Your task to perform on an android device: Show me popular games on the Play Store Image 0: 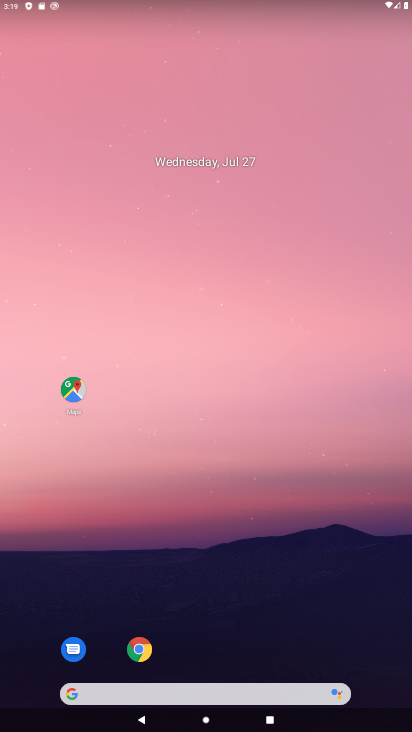
Step 0: drag from (373, 654) to (328, 153)
Your task to perform on an android device: Show me popular games on the Play Store Image 1: 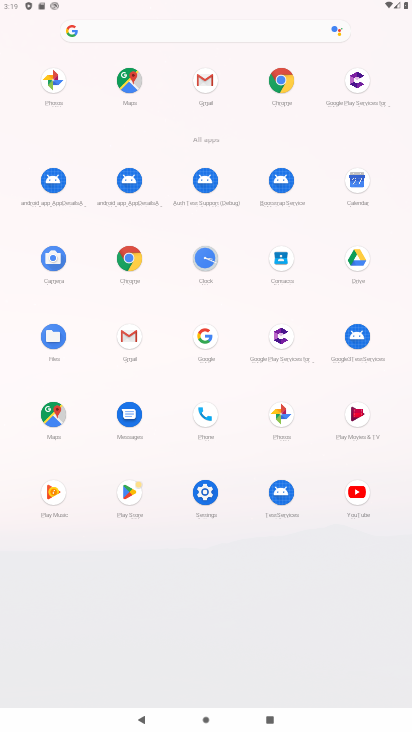
Step 1: click (131, 490)
Your task to perform on an android device: Show me popular games on the Play Store Image 2: 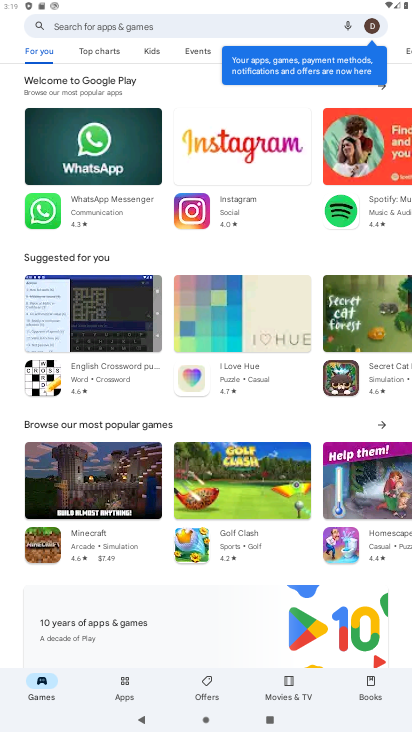
Step 2: click (382, 426)
Your task to perform on an android device: Show me popular games on the Play Store Image 3: 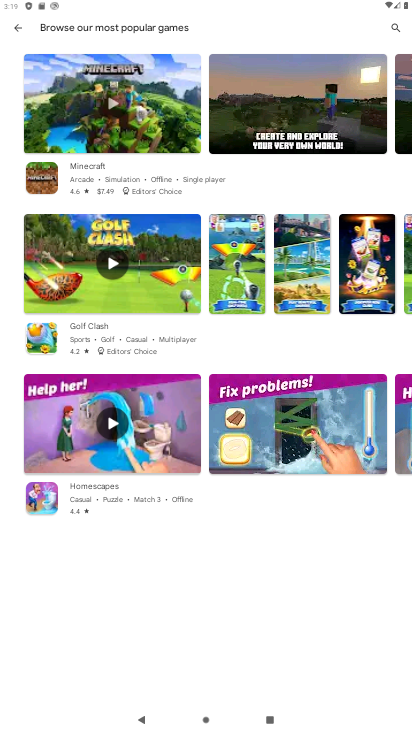
Step 3: task complete